Your task to perform on an android device: Search for seafood restaurants on Google Maps Image 0: 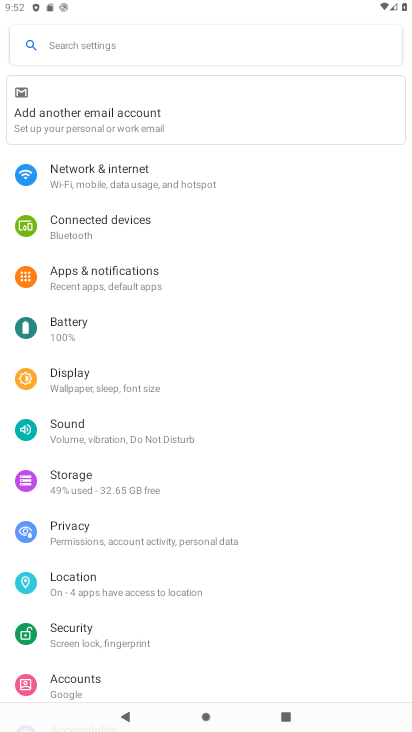
Step 0: press home button
Your task to perform on an android device: Search for seafood restaurants on Google Maps Image 1: 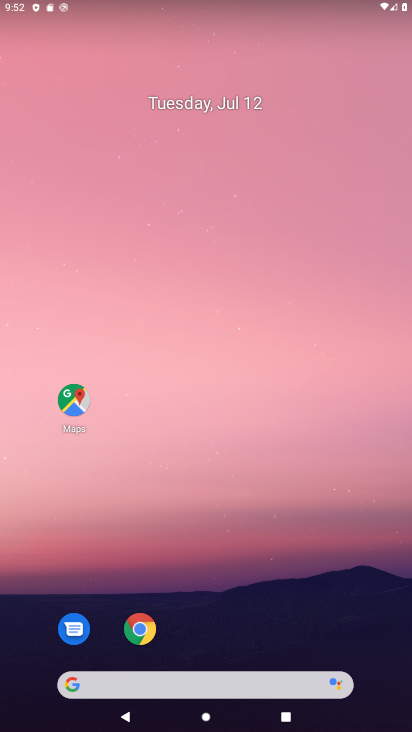
Step 1: drag from (279, 659) to (331, 85)
Your task to perform on an android device: Search for seafood restaurants on Google Maps Image 2: 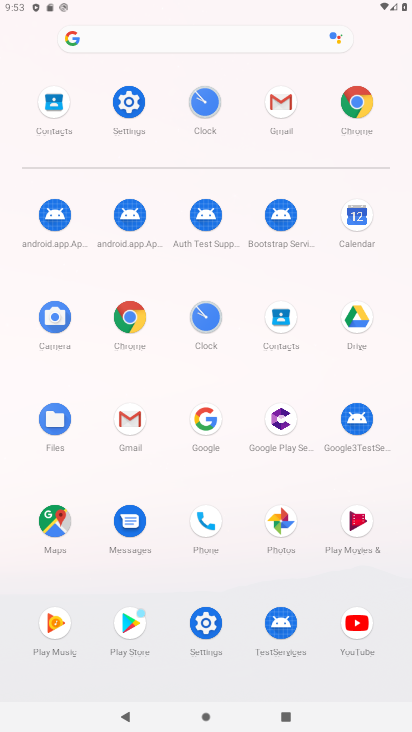
Step 2: click (52, 519)
Your task to perform on an android device: Search for seafood restaurants on Google Maps Image 3: 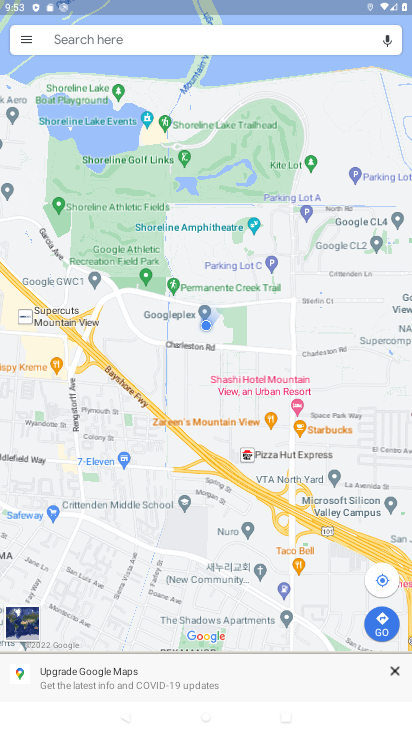
Step 3: click (175, 46)
Your task to perform on an android device: Search for seafood restaurants on Google Maps Image 4: 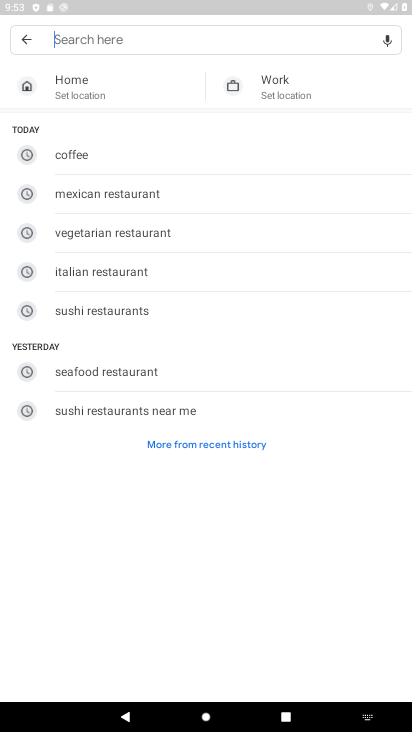
Step 4: click (142, 364)
Your task to perform on an android device: Search for seafood restaurants on Google Maps Image 5: 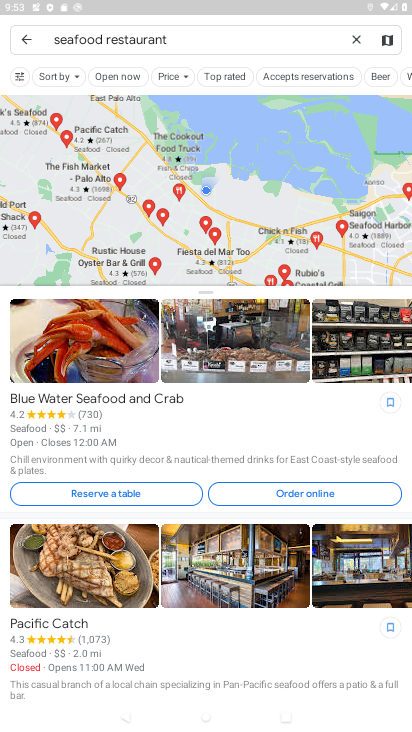
Step 5: task complete